Your task to perform on an android device: Open ESPN.com Image 0: 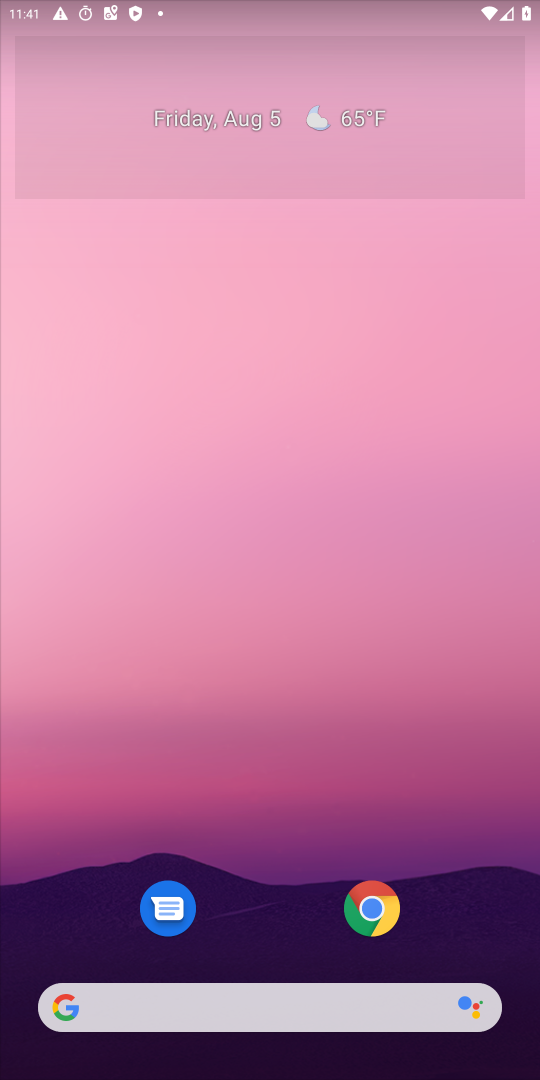
Step 0: click (125, 1011)
Your task to perform on an android device: Open ESPN.com Image 1: 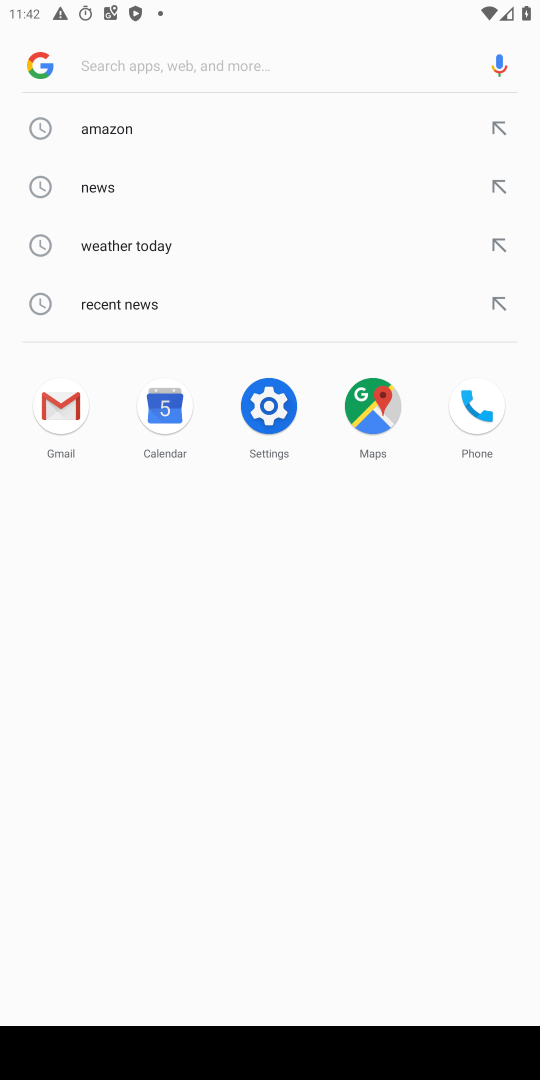
Step 1: type "ESPN.com"
Your task to perform on an android device: Open ESPN.com Image 2: 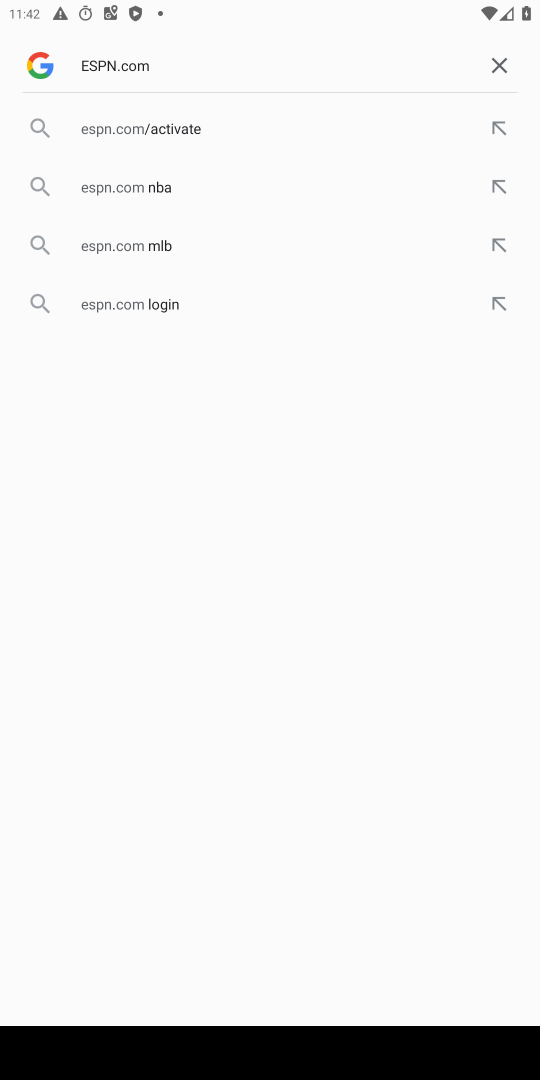
Step 2: type ""
Your task to perform on an android device: Open ESPN.com Image 3: 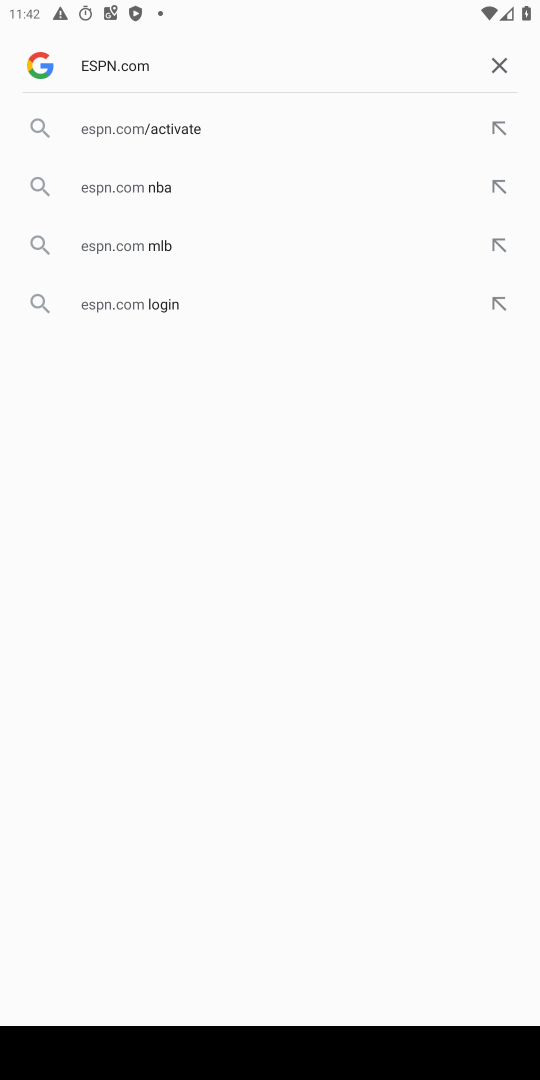
Step 3: task complete